Your task to perform on an android device: empty trash in the gmail app Image 0: 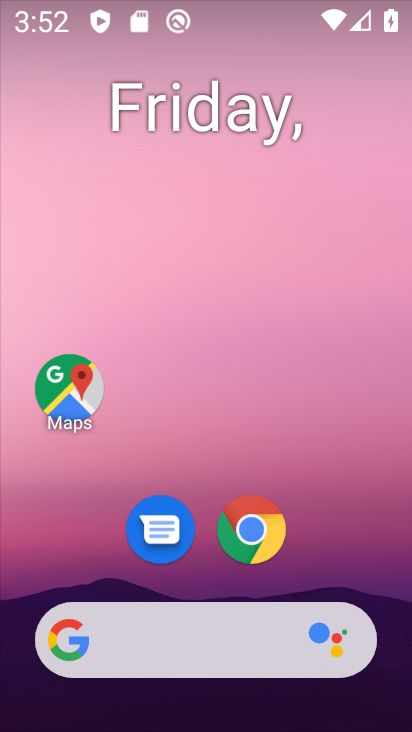
Step 0: drag from (50, 604) to (219, 151)
Your task to perform on an android device: empty trash in the gmail app Image 1: 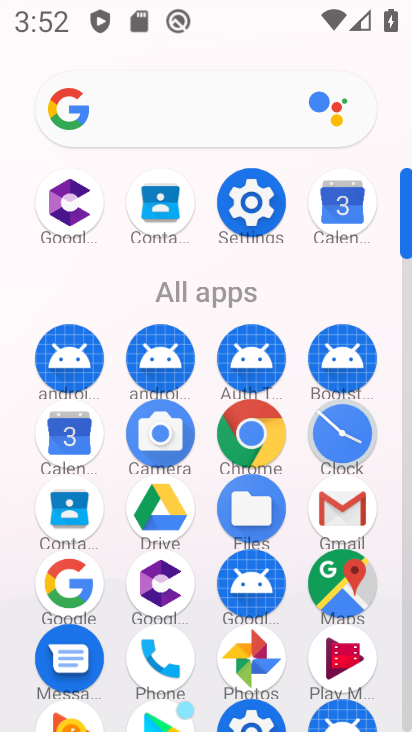
Step 1: click (342, 520)
Your task to perform on an android device: empty trash in the gmail app Image 2: 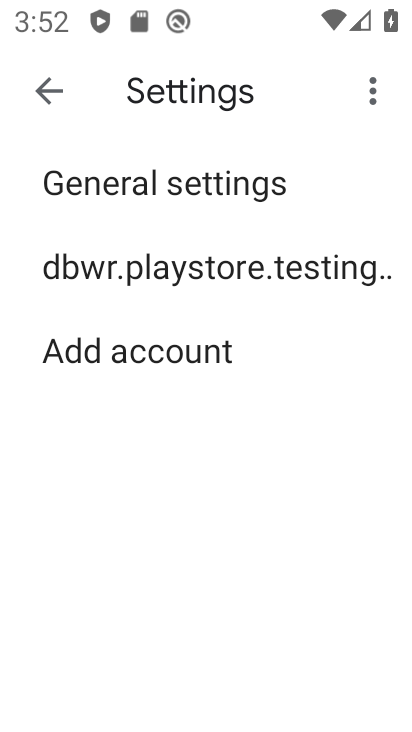
Step 2: click (47, 89)
Your task to perform on an android device: empty trash in the gmail app Image 3: 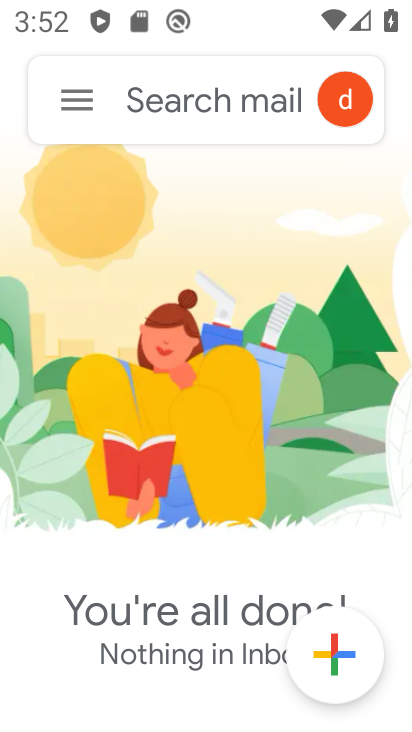
Step 3: click (57, 90)
Your task to perform on an android device: empty trash in the gmail app Image 4: 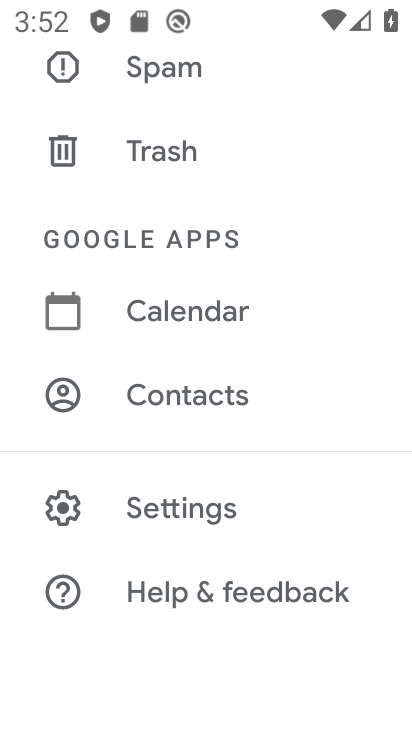
Step 4: click (191, 176)
Your task to perform on an android device: empty trash in the gmail app Image 5: 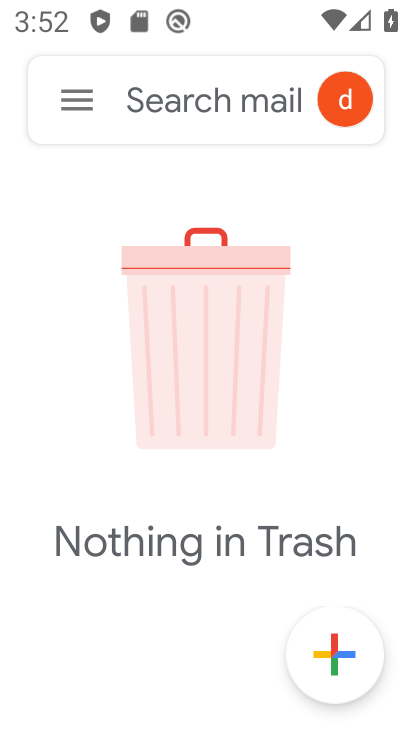
Step 5: task complete